Your task to perform on an android device: delete location history Image 0: 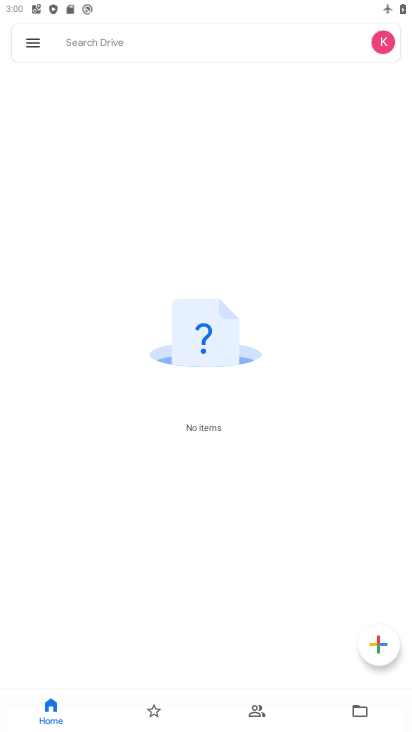
Step 0: press home button
Your task to perform on an android device: delete location history Image 1: 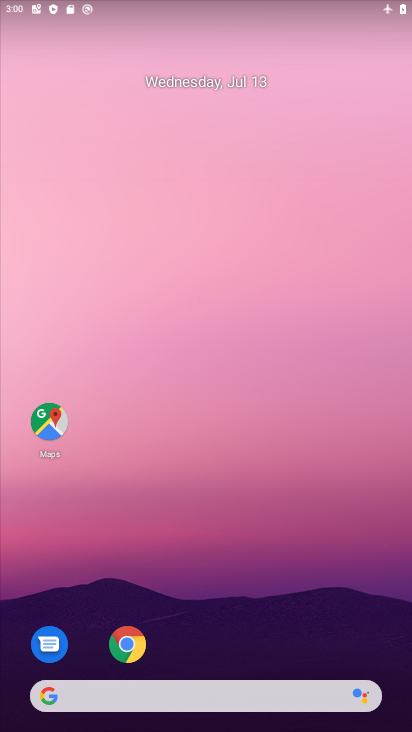
Step 1: drag from (312, 518) to (278, 97)
Your task to perform on an android device: delete location history Image 2: 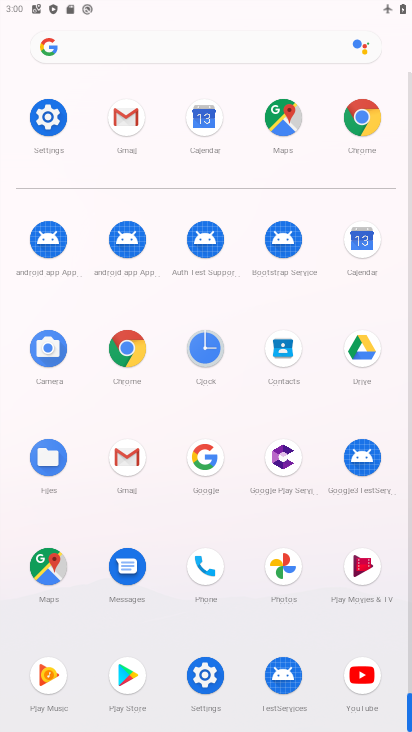
Step 2: click (286, 124)
Your task to perform on an android device: delete location history Image 3: 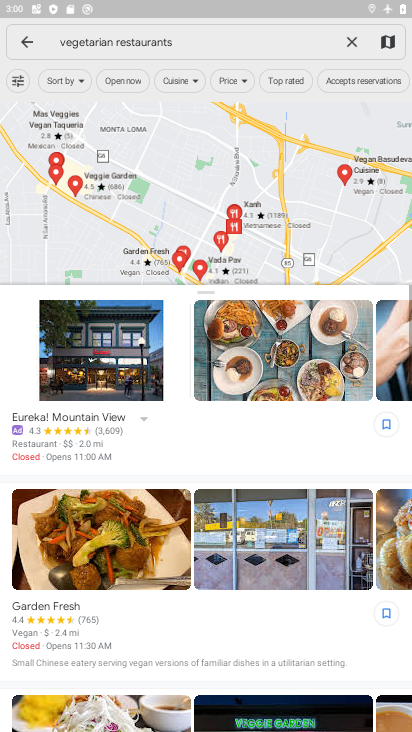
Step 3: click (20, 48)
Your task to perform on an android device: delete location history Image 4: 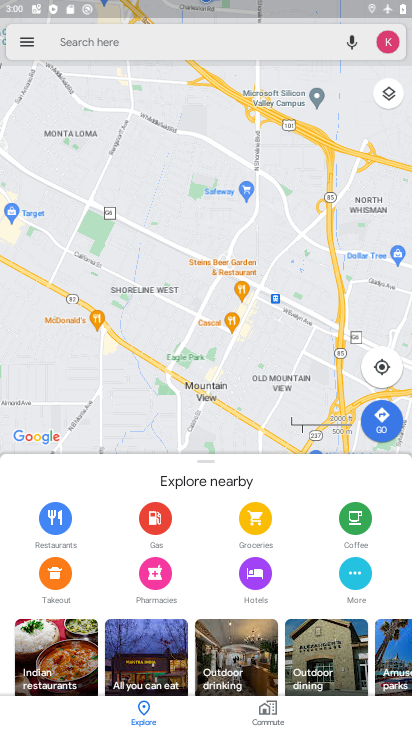
Step 4: click (26, 38)
Your task to perform on an android device: delete location history Image 5: 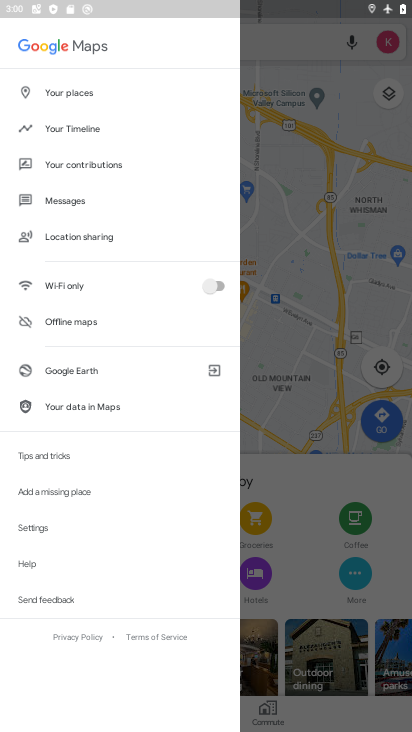
Step 5: click (22, 530)
Your task to perform on an android device: delete location history Image 6: 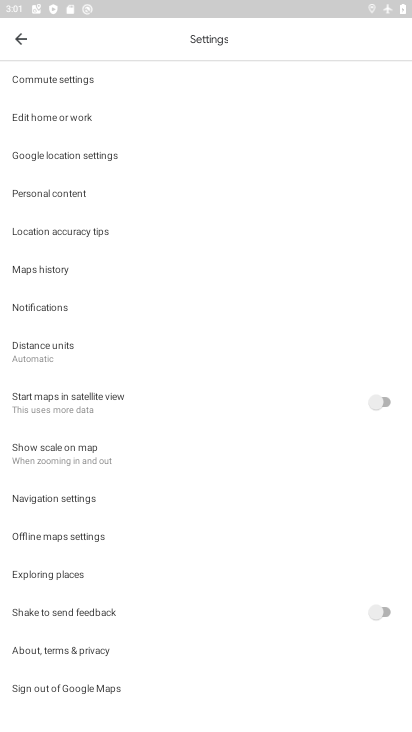
Step 6: click (59, 269)
Your task to perform on an android device: delete location history Image 7: 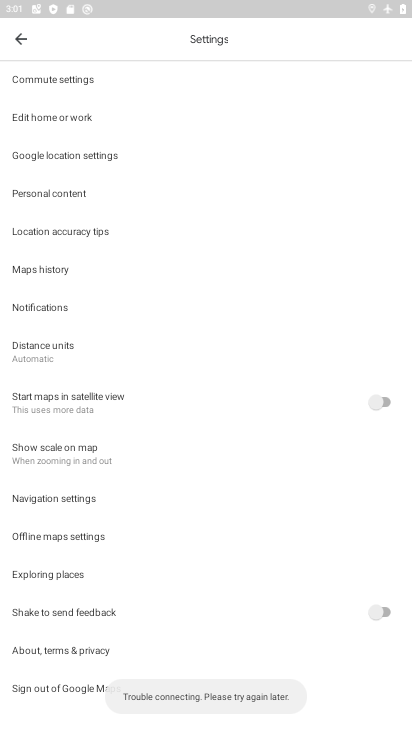
Step 7: click (57, 275)
Your task to perform on an android device: delete location history Image 8: 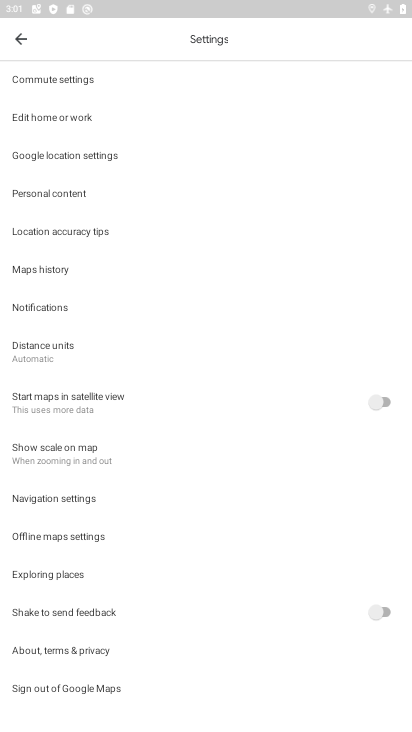
Step 8: task complete